Your task to perform on an android device: turn off improve location accuracy Image 0: 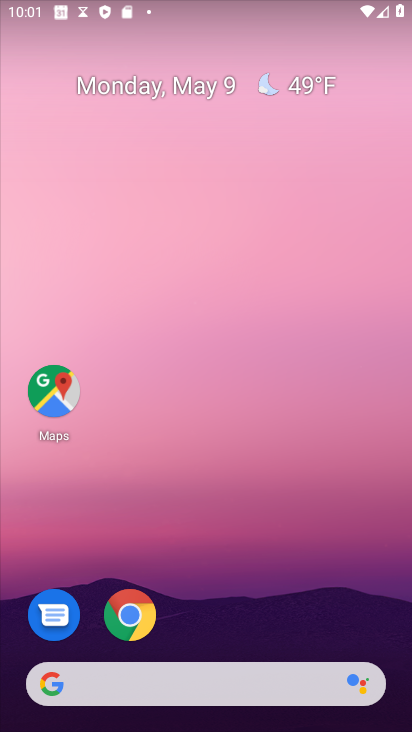
Step 0: drag from (216, 525) to (237, 201)
Your task to perform on an android device: turn off improve location accuracy Image 1: 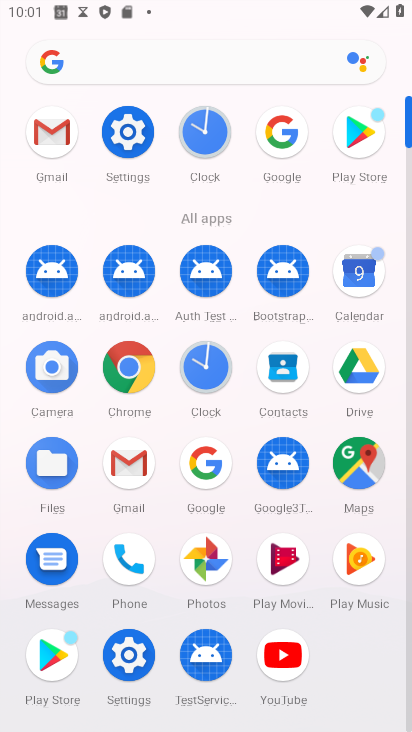
Step 1: click (135, 140)
Your task to perform on an android device: turn off improve location accuracy Image 2: 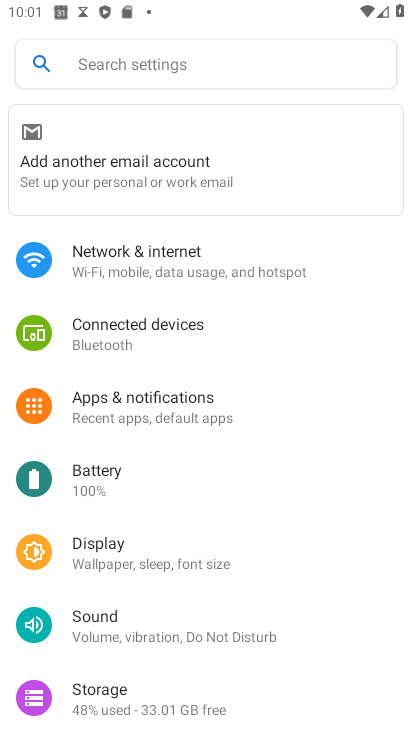
Step 2: drag from (213, 673) to (213, 365)
Your task to perform on an android device: turn off improve location accuracy Image 3: 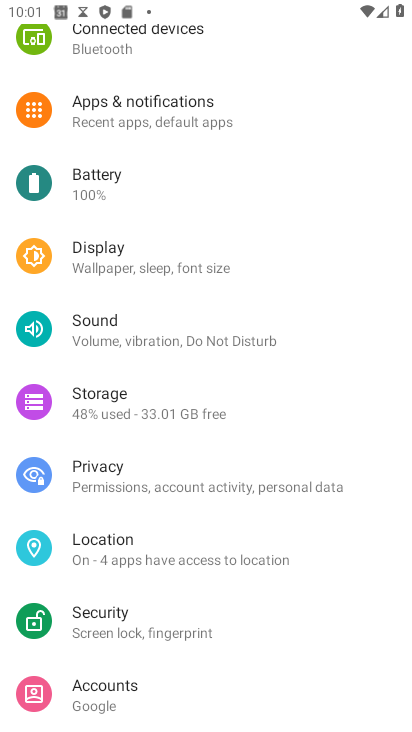
Step 3: click (160, 557)
Your task to perform on an android device: turn off improve location accuracy Image 4: 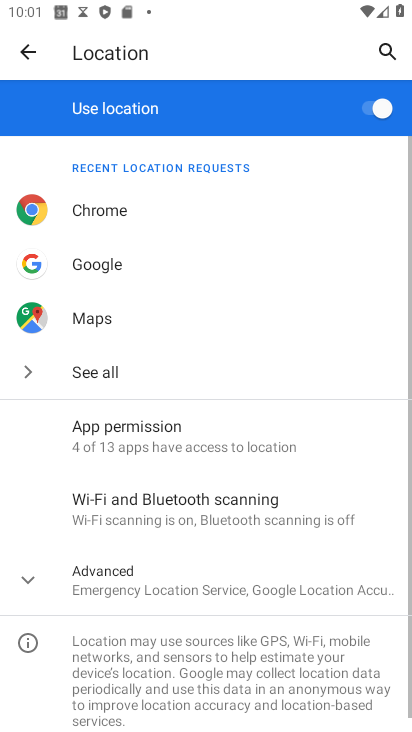
Step 4: click (20, 583)
Your task to perform on an android device: turn off improve location accuracy Image 5: 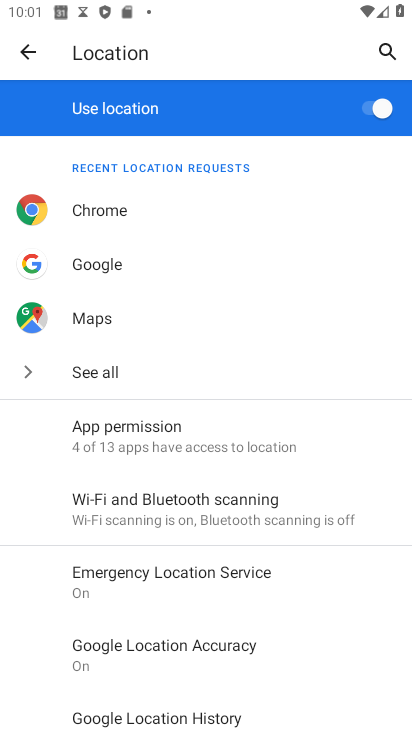
Step 5: click (218, 653)
Your task to perform on an android device: turn off improve location accuracy Image 6: 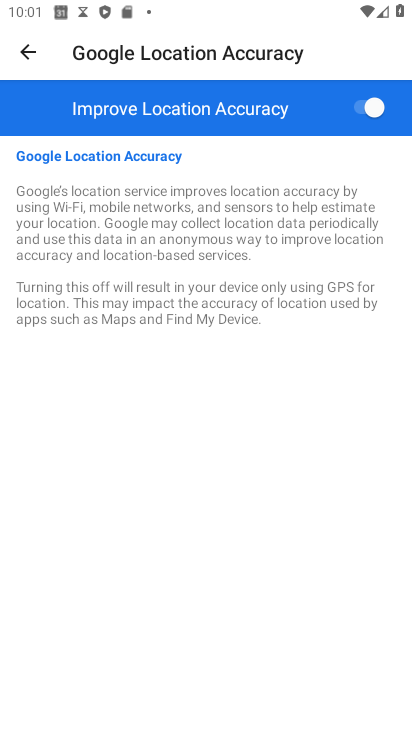
Step 6: click (361, 109)
Your task to perform on an android device: turn off improve location accuracy Image 7: 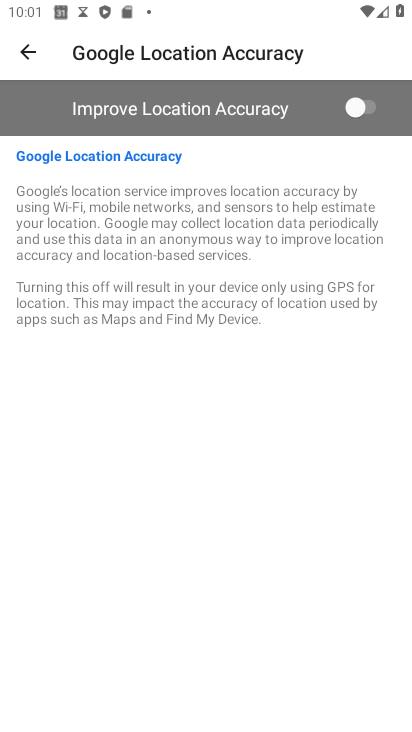
Step 7: task complete